Your task to perform on an android device: Go to Yahoo.com Image 0: 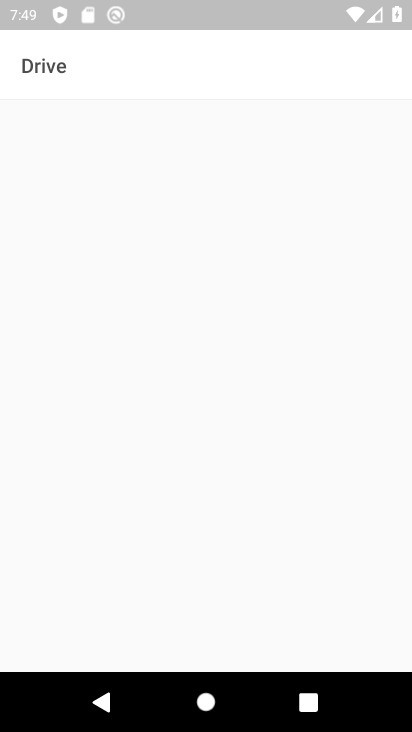
Step 0: press home button
Your task to perform on an android device: Go to Yahoo.com Image 1: 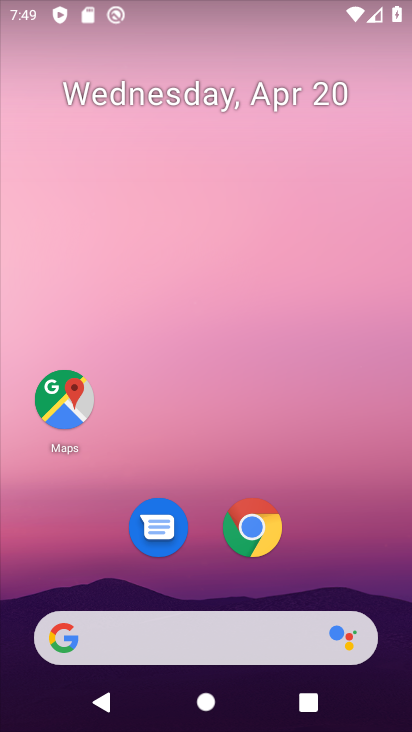
Step 1: click (258, 526)
Your task to perform on an android device: Go to Yahoo.com Image 2: 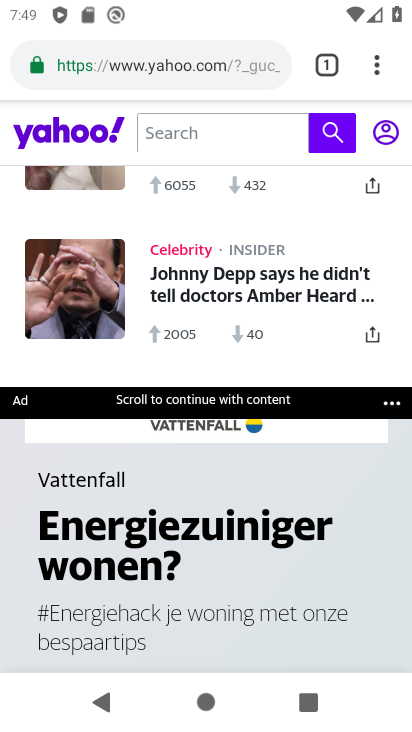
Step 2: task complete